Your task to perform on an android device: Open the web browser Image 0: 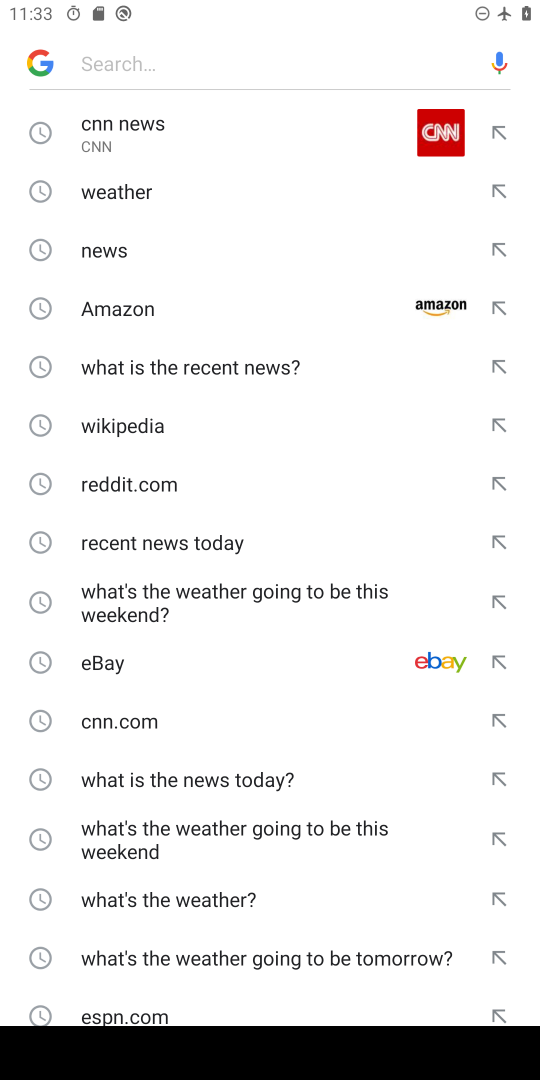
Step 0: task complete